Your task to perform on an android device: Open the phone app and click the voicemail tab. Image 0: 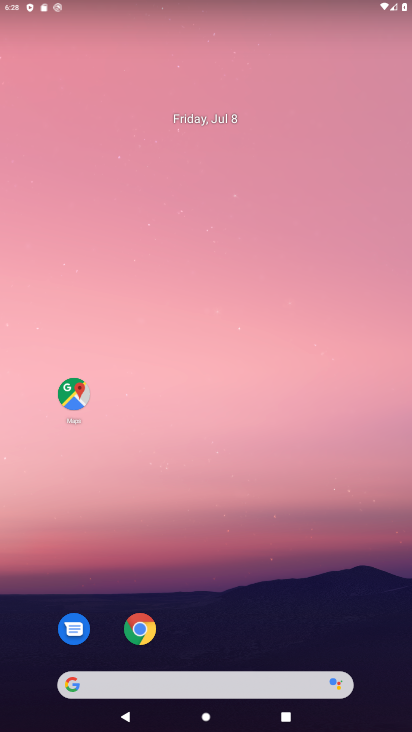
Step 0: drag from (386, 695) to (314, 3)
Your task to perform on an android device: Open the phone app and click the voicemail tab. Image 1: 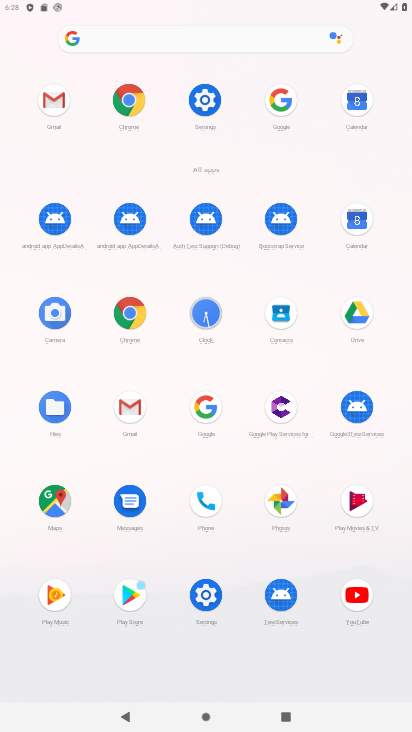
Step 1: click (344, 501)
Your task to perform on an android device: Open the phone app and click the voicemail tab. Image 2: 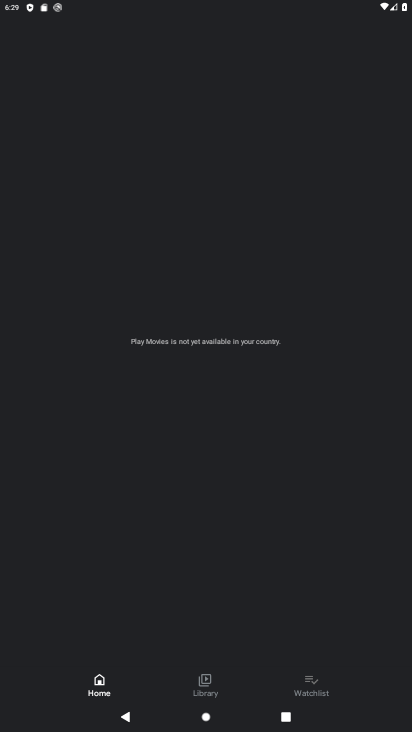
Step 2: click (328, 692)
Your task to perform on an android device: Open the phone app and click the voicemail tab. Image 3: 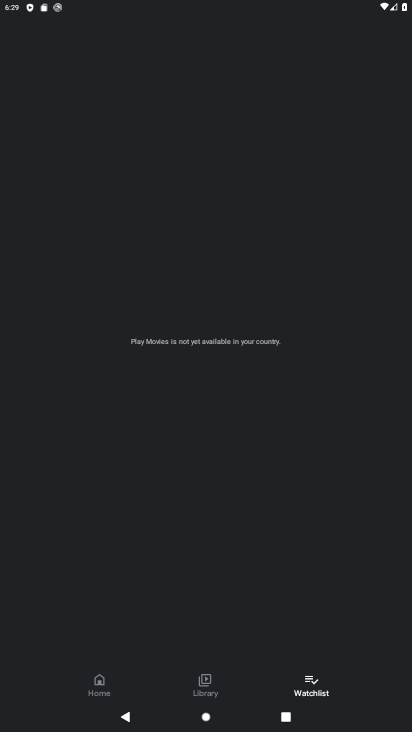
Step 3: task complete